Your task to perform on an android device: open a new tab in the chrome app Image 0: 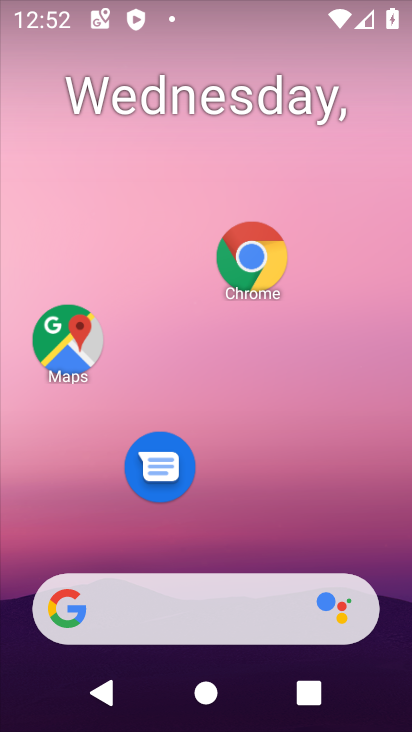
Step 0: press home button
Your task to perform on an android device: open a new tab in the chrome app Image 1: 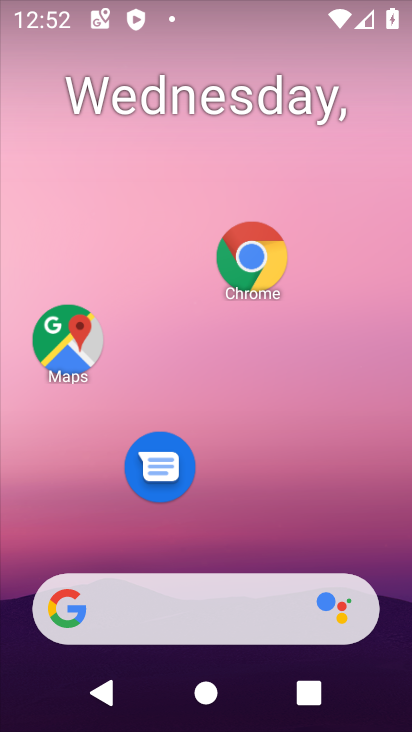
Step 1: click (233, 265)
Your task to perform on an android device: open a new tab in the chrome app Image 2: 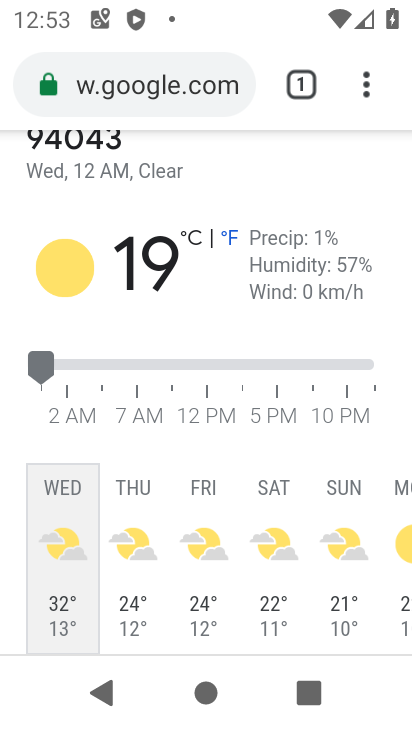
Step 2: task complete